Your task to perform on an android device: Open Youtube and go to the subscriptions tab Image 0: 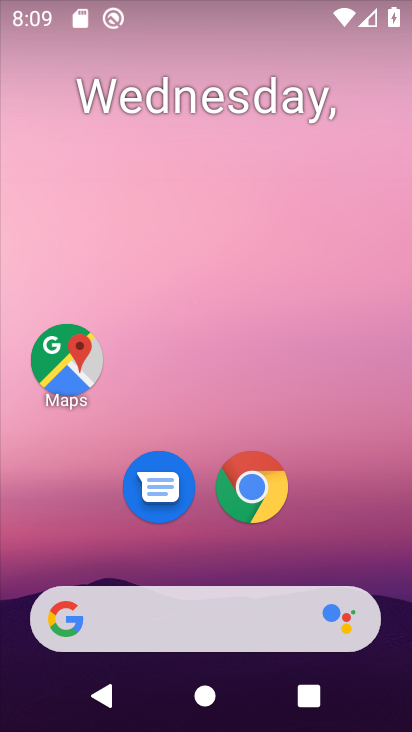
Step 0: drag from (344, 547) to (280, 60)
Your task to perform on an android device: Open Youtube and go to the subscriptions tab Image 1: 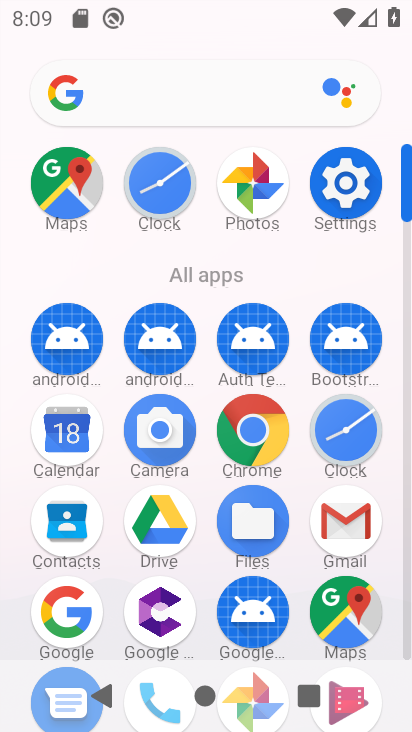
Step 1: drag from (300, 479) to (289, 258)
Your task to perform on an android device: Open Youtube and go to the subscriptions tab Image 2: 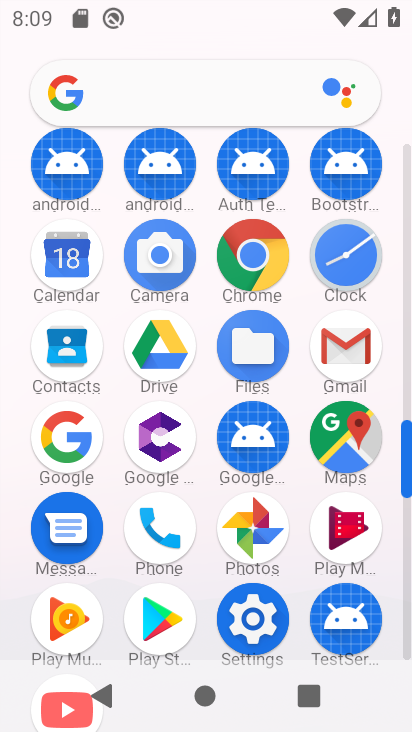
Step 2: drag from (294, 509) to (302, 308)
Your task to perform on an android device: Open Youtube and go to the subscriptions tab Image 3: 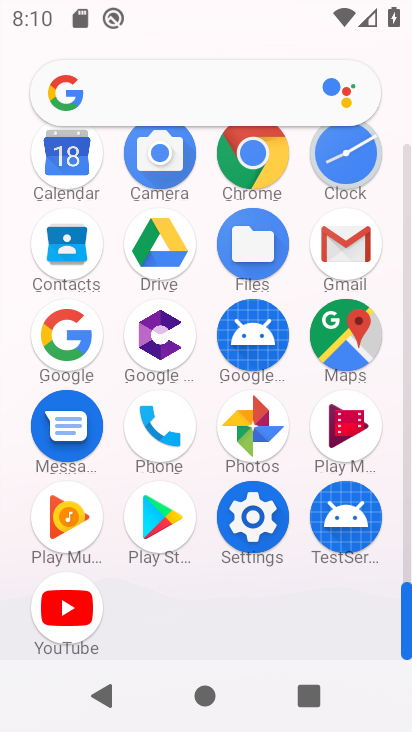
Step 3: click (70, 607)
Your task to perform on an android device: Open Youtube and go to the subscriptions tab Image 4: 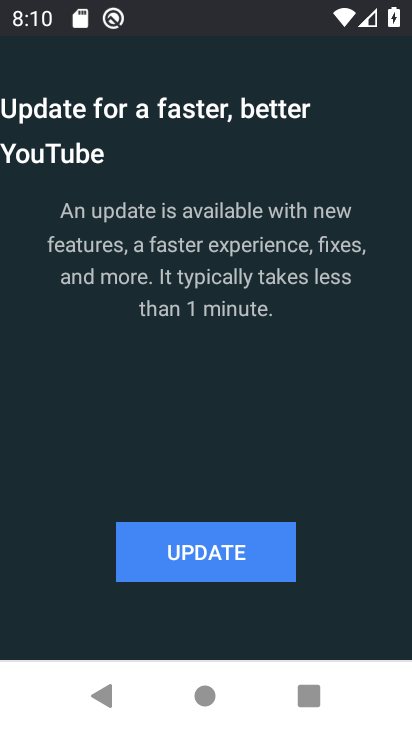
Step 4: click (194, 559)
Your task to perform on an android device: Open Youtube and go to the subscriptions tab Image 5: 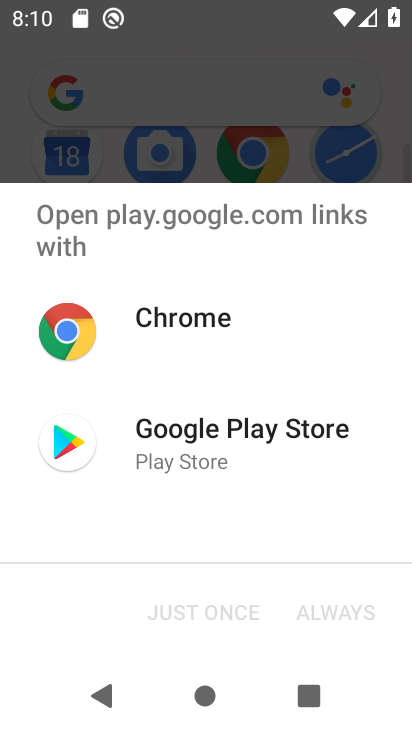
Step 5: click (217, 442)
Your task to perform on an android device: Open Youtube and go to the subscriptions tab Image 6: 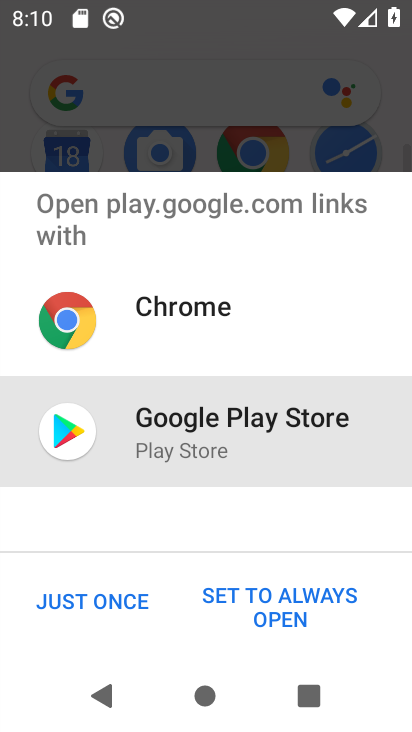
Step 6: click (112, 595)
Your task to perform on an android device: Open Youtube and go to the subscriptions tab Image 7: 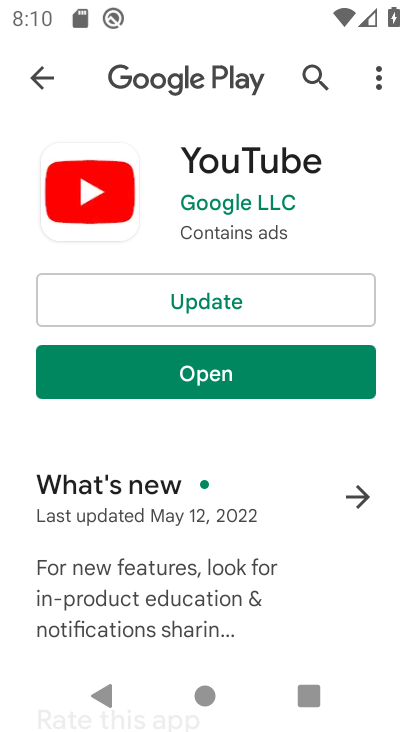
Step 7: click (206, 303)
Your task to perform on an android device: Open Youtube and go to the subscriptions tab Image 8: 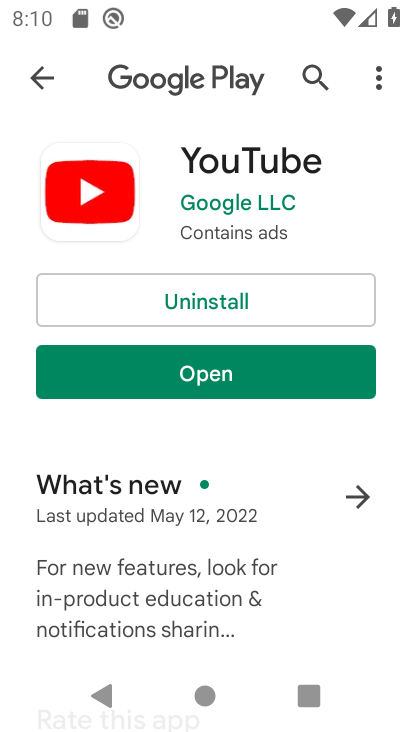
Step 8: click (214, 375)
Your task to perform on an android device: Open Youtube and go to the subscriptions tab Image 9: 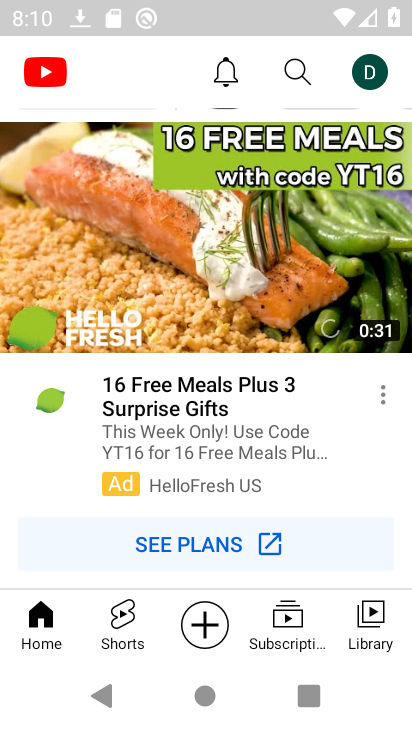
Step 9: click (286, 613)
Your task to perform on an android device: Open Youtube and go to the subscriptions tab Image 10: 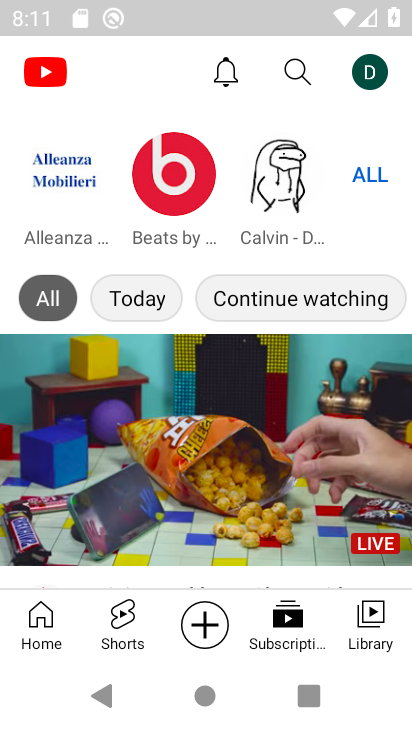
Step 10: task complete